Your task to perform on an android device: set an alarm Image 0: 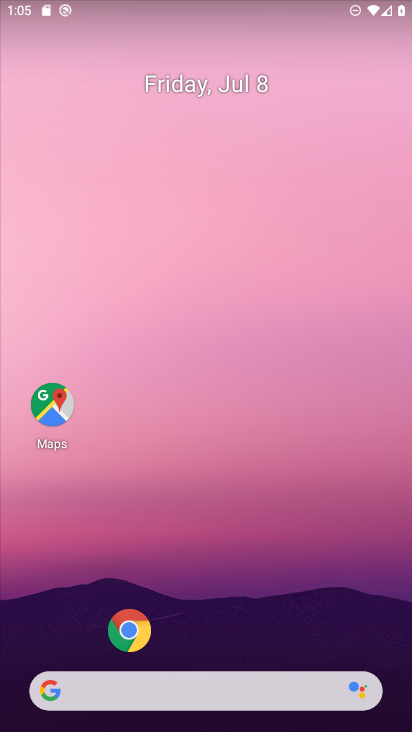
Step 0: drag from (280, 671) to (271, 110)
Your task to perform on an android device: set an alarm Image 1: 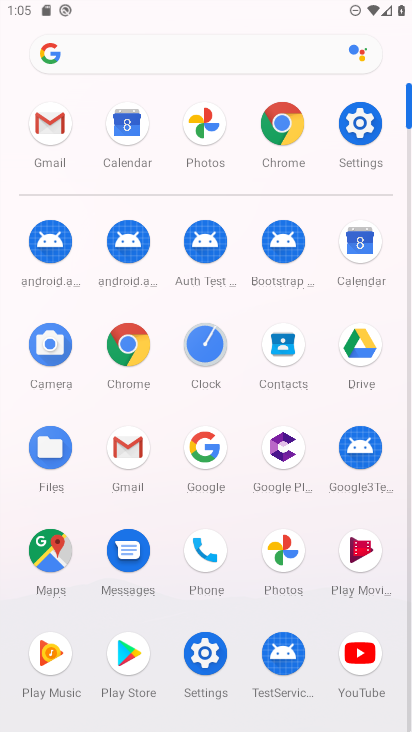
Step 1: click (206, 346)
Your task to perform on an android device: set an alarm Image 2: 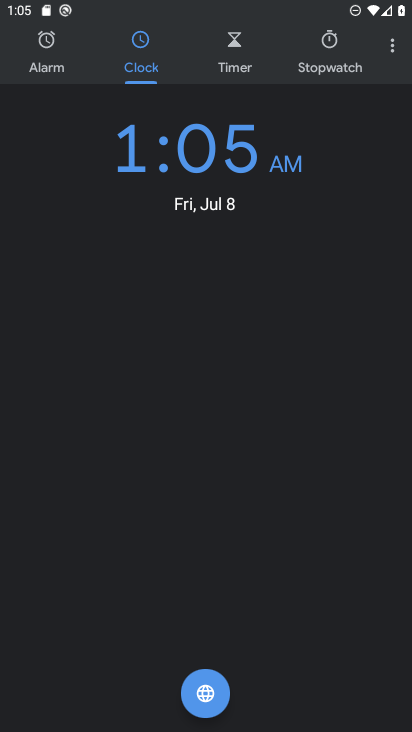
Step 2: click (40, 43)
Your task to perform on an android device: set an alarm Image 3: 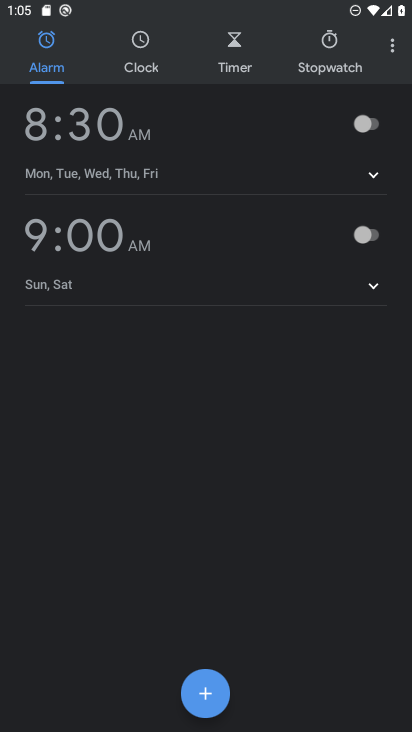
Step 3: click (366, 234)
Your task to perform on an android device: set an alarm Image 4: 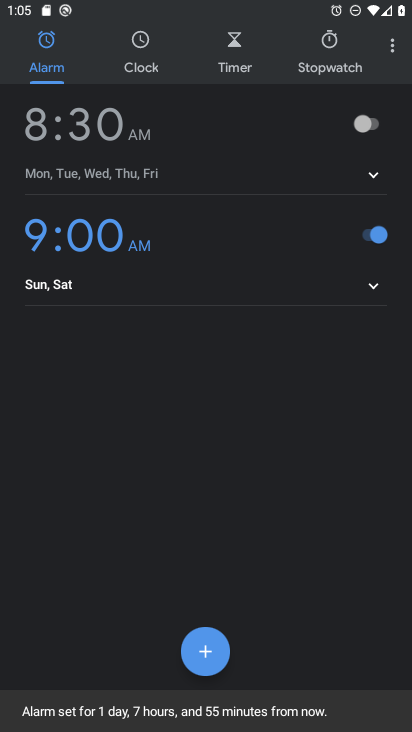
Step 4: task complete